Your task to perform on an android device: snooze an email in the gmail app Image 0: 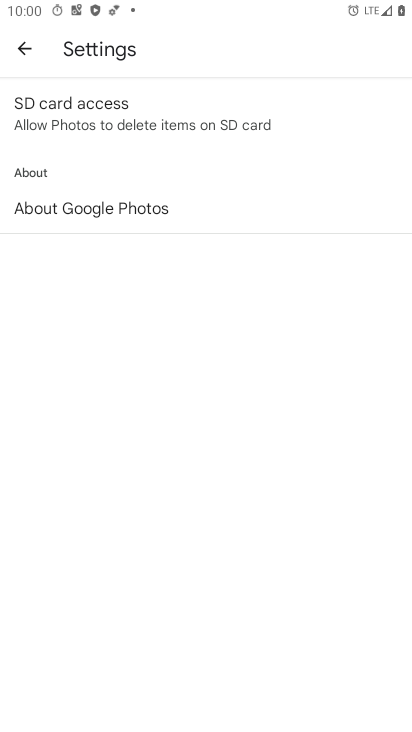
Step 0: press home button
Your task to perform on an android device: snooze an email in the gmail app Image 1: 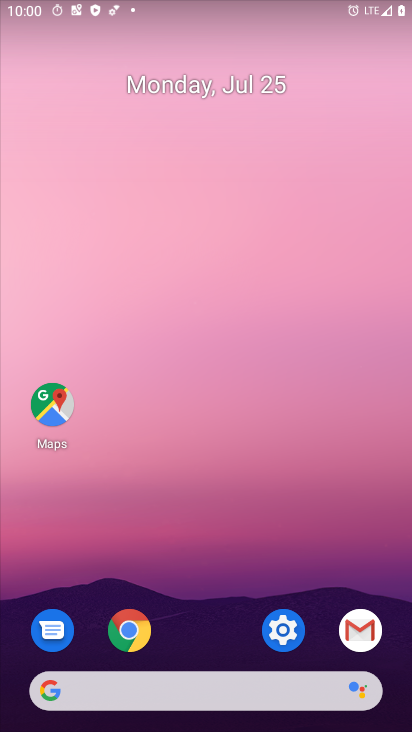
Step 1: click (338, 634)
Your task to perform on an android device: snooze an email in the gmail app Image 2: 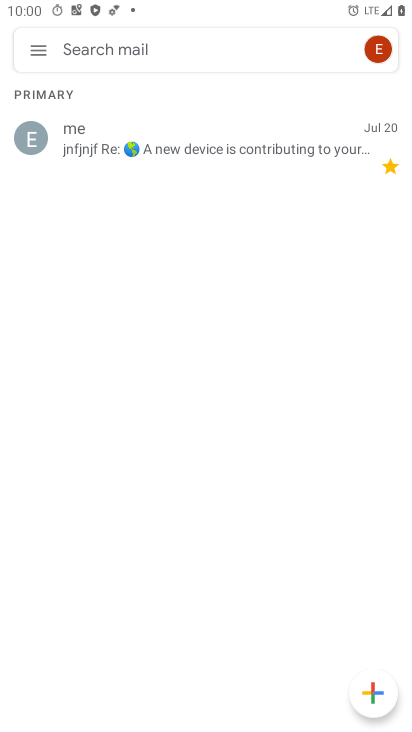
Step 2: click (37, 53)
Your task to perform on an android device: snooze an email in the gmail app Image 3: 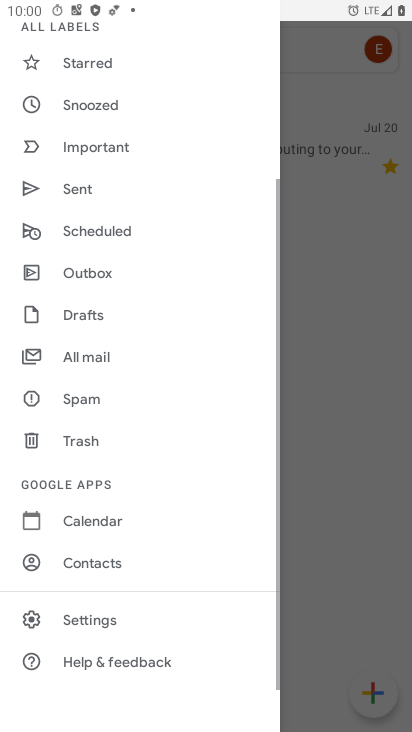
Step 3: click (82, 109)
Your task to perform on an android device: snooze an email in the gmail app Image 4: 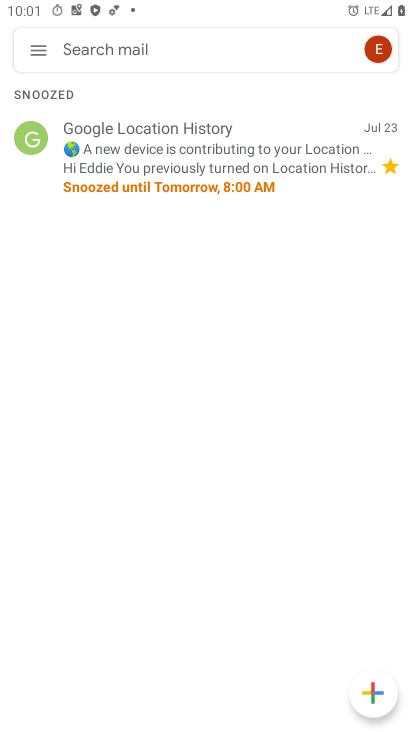
Step 4: task complete